Your task to perform on an android device: add a contact Image 0: 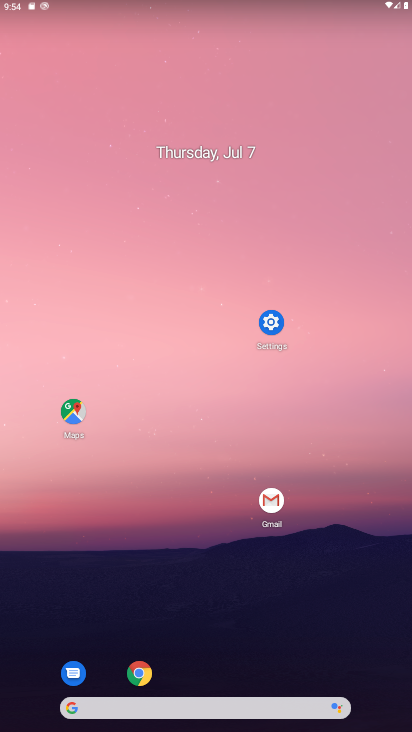
Step 0: drag from (369, 561) to (325, 112)
Your task to perform on an android device: add a contact Image 1: 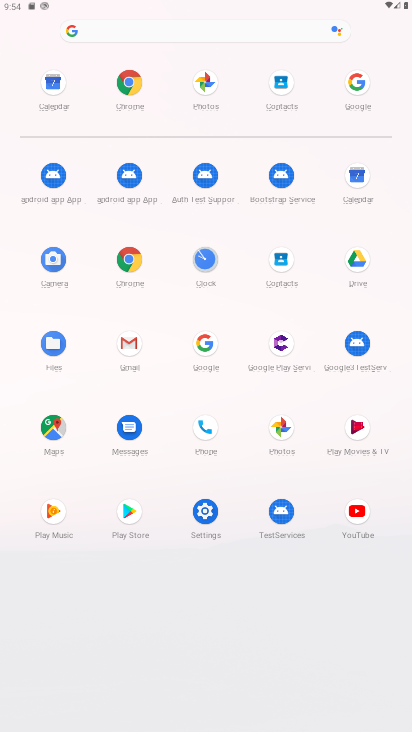
Step 1: click (286, 262)
Your task to perform on an android device: add a contact Image 2: 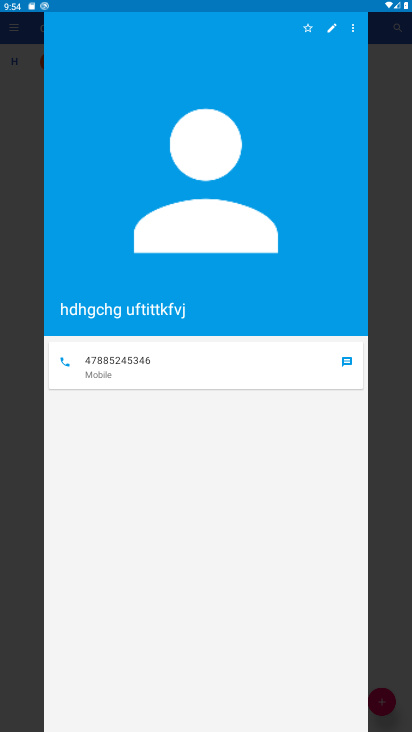
Step 2: press back button
Your task to perform on an android device: add a contact Image 3: 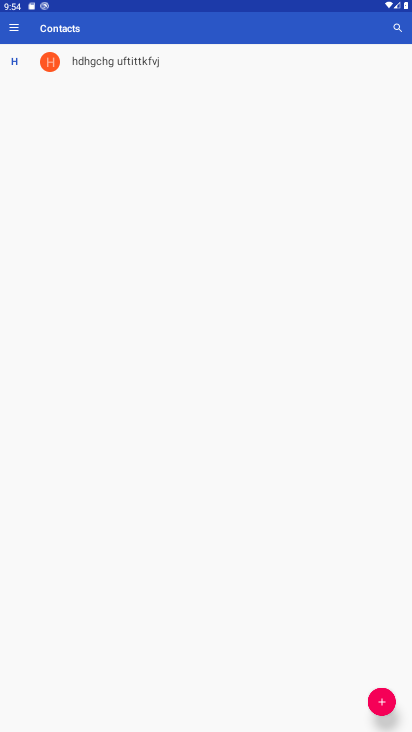
Step 3: click (376, 693)
Your task to perform on an android device: add a contact Image 4: 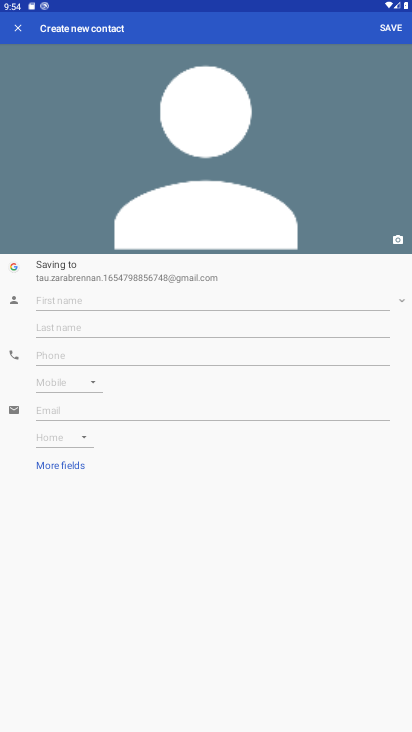
Step 4: click (99, 291)
Your task to perform on an android device: add a contact Image 5: 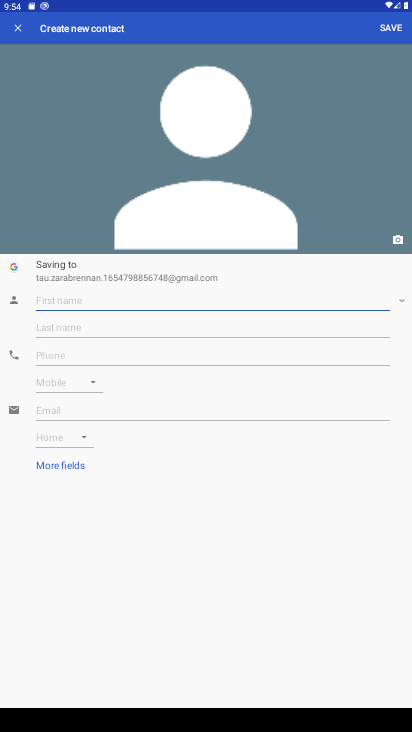
Step 5: type "fkggfghcgnmm"
Your task to perform on an android device: add a contact Image 6: 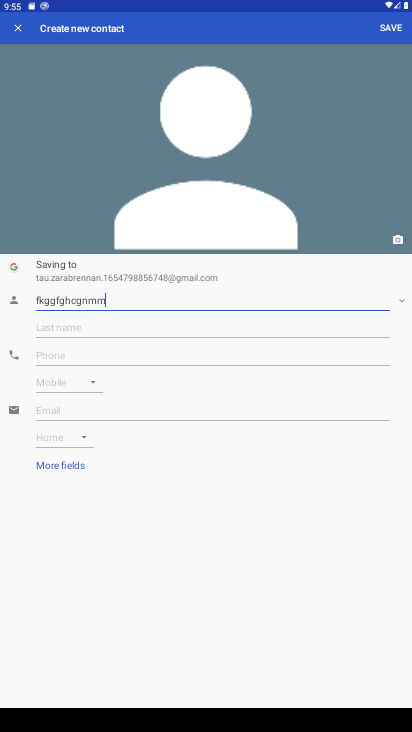
Step 6: click (242, 320)
Your task to perform on an android device: add a contact Image 7: 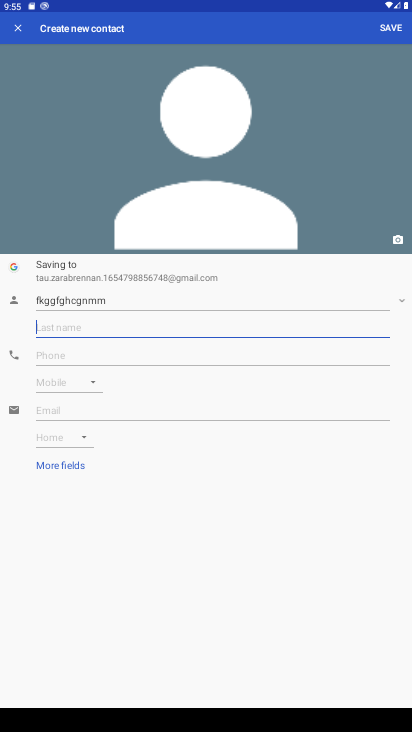
Step 7: type "eaehsfgj"
Your task to perform on an android device: add a contact Image 8: 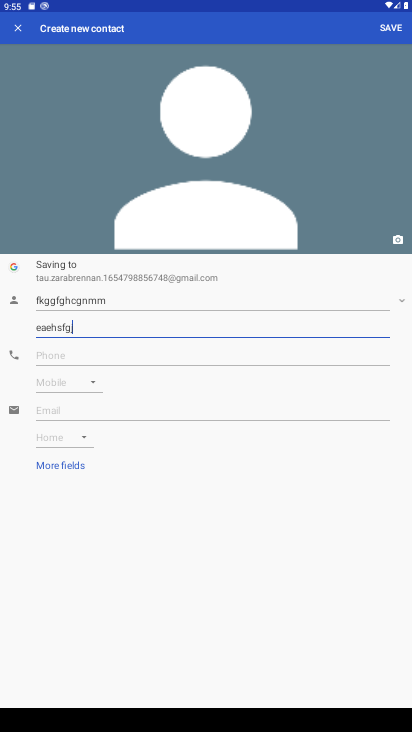
Step 8: click (108, 350)
Your task to perform on an android device: add a contact Image 9: 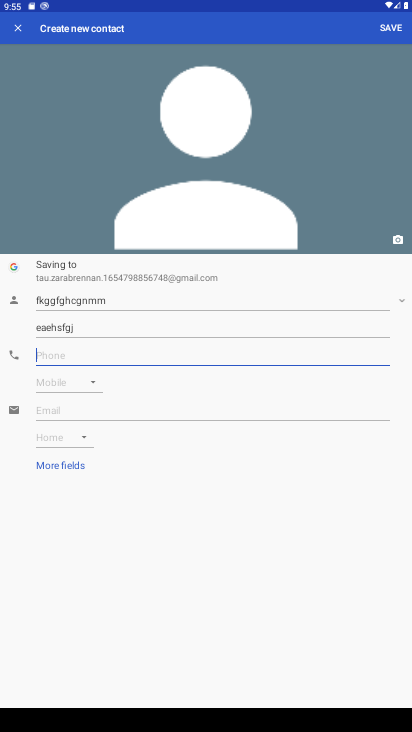
Step 9: type "454754747447"
Your task to perform on an android device: add a contact Image 10: 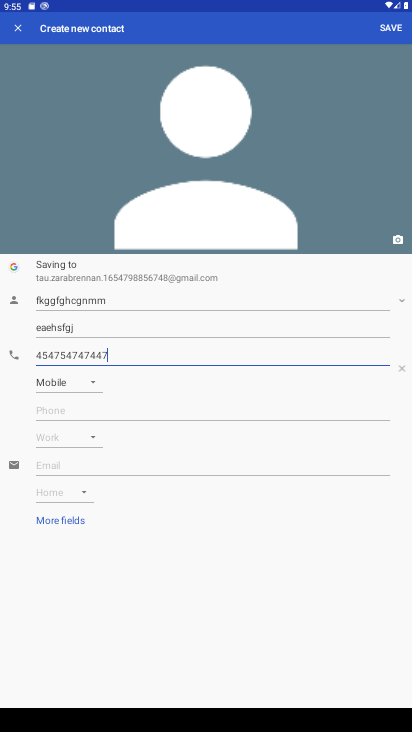
Step 10: click (395, 30)
Your task to perform on an android device: add a contact Image 11: 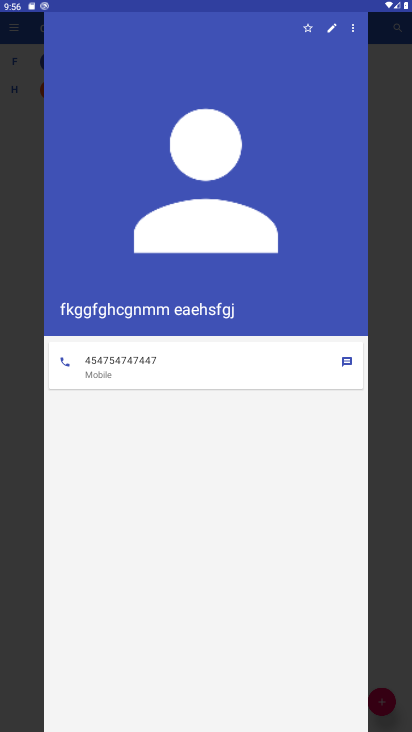
Step 11: task complete